Your task to perform on an android device: change notifications settings Image 0: 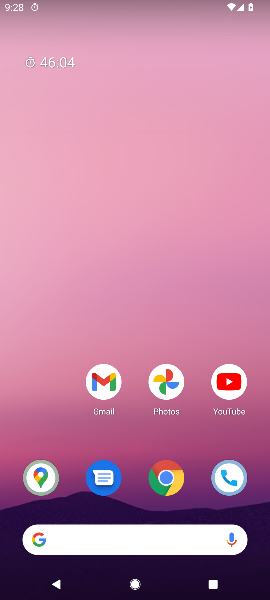
Step 0: press home button
Your task to perform on an android device: change notifications settings Image 1: 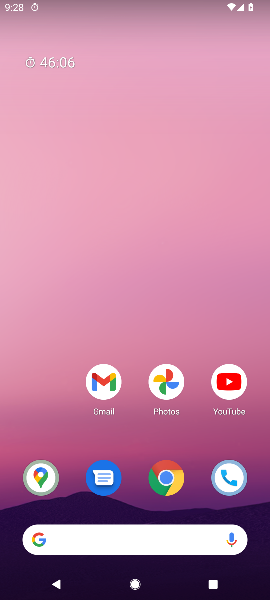
Step 1: drag from (163, 509) to (166, 106)
Your task to perform on an android device: change notifications settings Image 2: 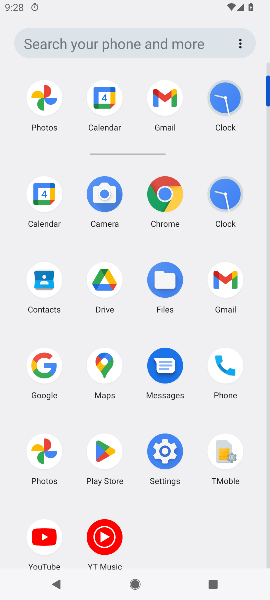
Step 2: click (169, 461)
Your task to perform on an android device: change notifications settings Image 3: 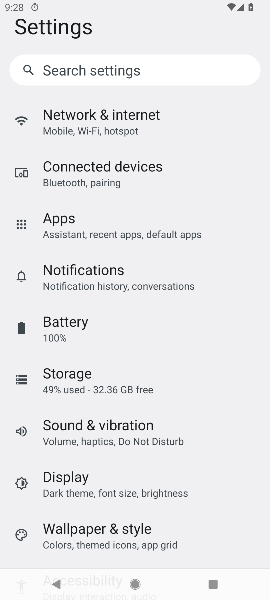
Step 3: click (102, 277)
Your task to perform on an android device: change notifications settings Image 4: 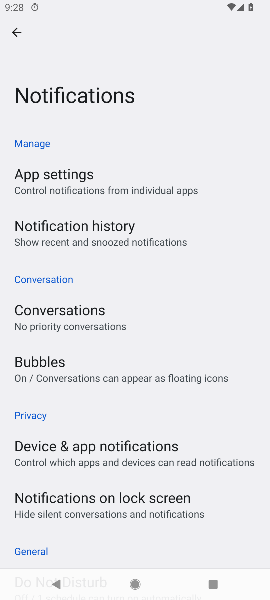
Step 4: drag from (143, 524) to (96, 1)
Your task to perform on an android device: change notifications settings Image 5: 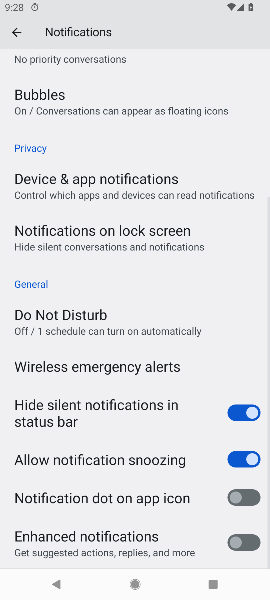
Step 5: click (245, 450)
Your task to perform on an android device: change notifications settings Image 6: 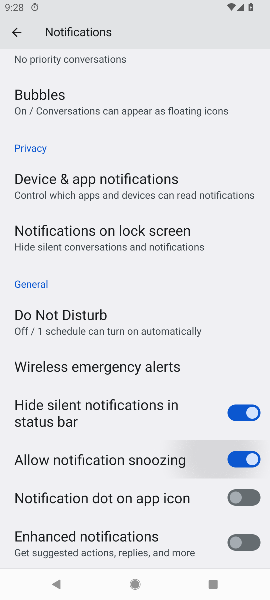
Step 6: click (245, 502)
Your task to perform on an android device: change notifications settings Image 7: 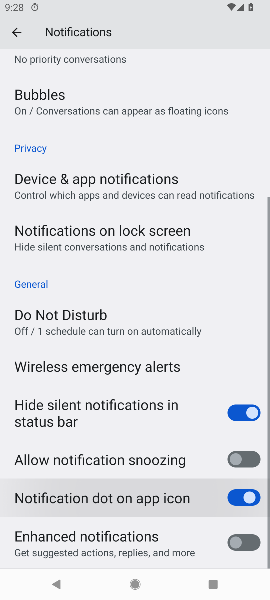
Step 7: click (251, 397)
Your task to perform on an android device: change notifications settings Image 8: 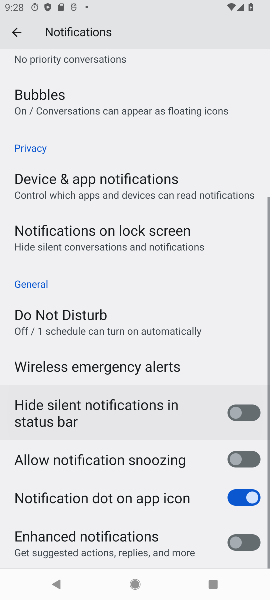
Step 8: click (241, 542)
Your task to perform on an android device: change notifications settings Image 9: 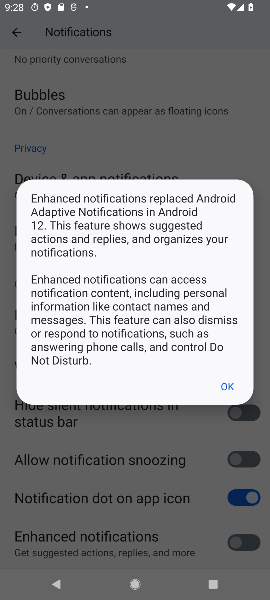
Step 9: click (220, 386)
Your task to perform on an android device: change notifications settings Image 10: 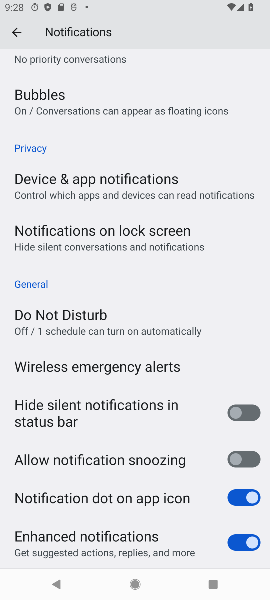
Step 10: task complete